Your task to perform on an android device: Go to privacy settings Image 0: 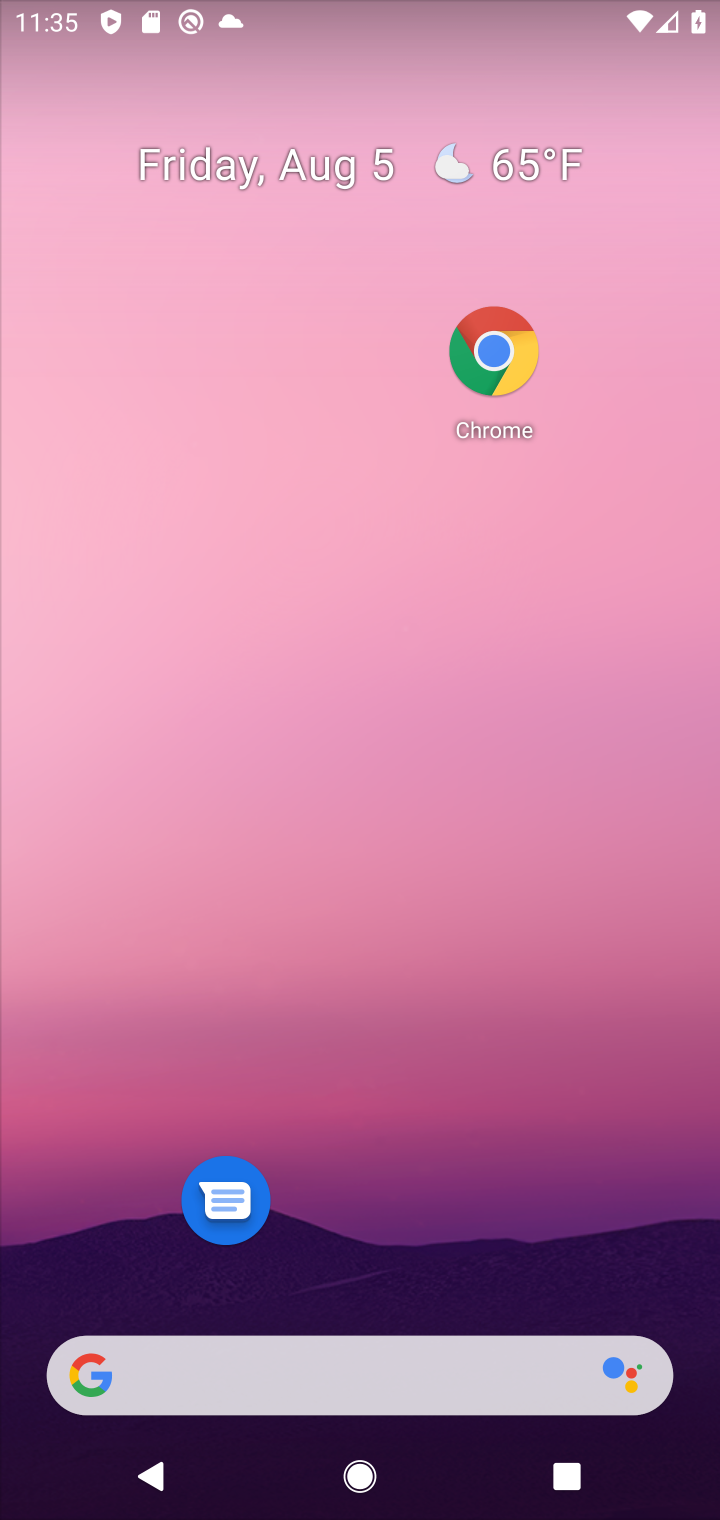
Step 0: drag from (364, 1325) to (457, 453)
Your task to perform on an android device: Go to privacy settings Image 1: 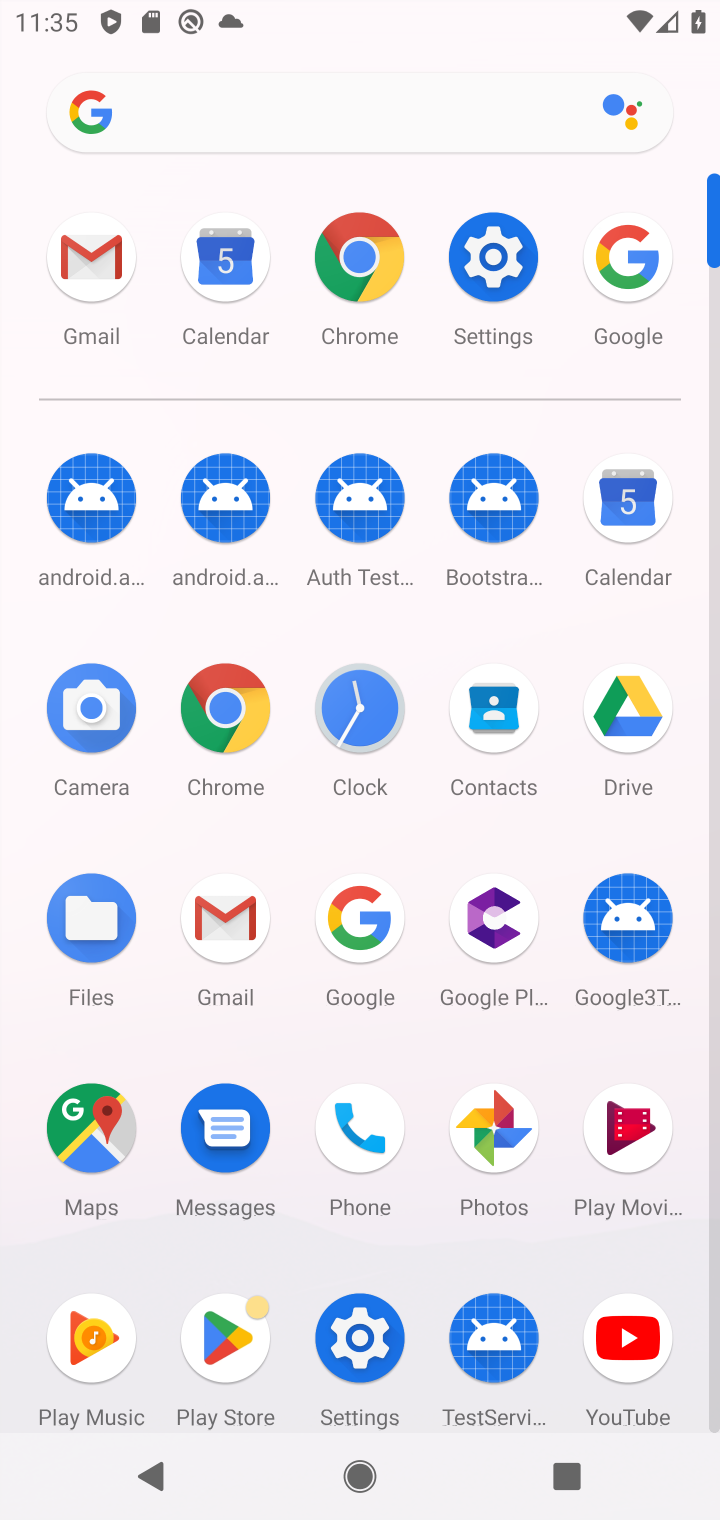
Step 1: click (511, 304)
Your task to perform on an android device: Go to privacy settings Image 2: 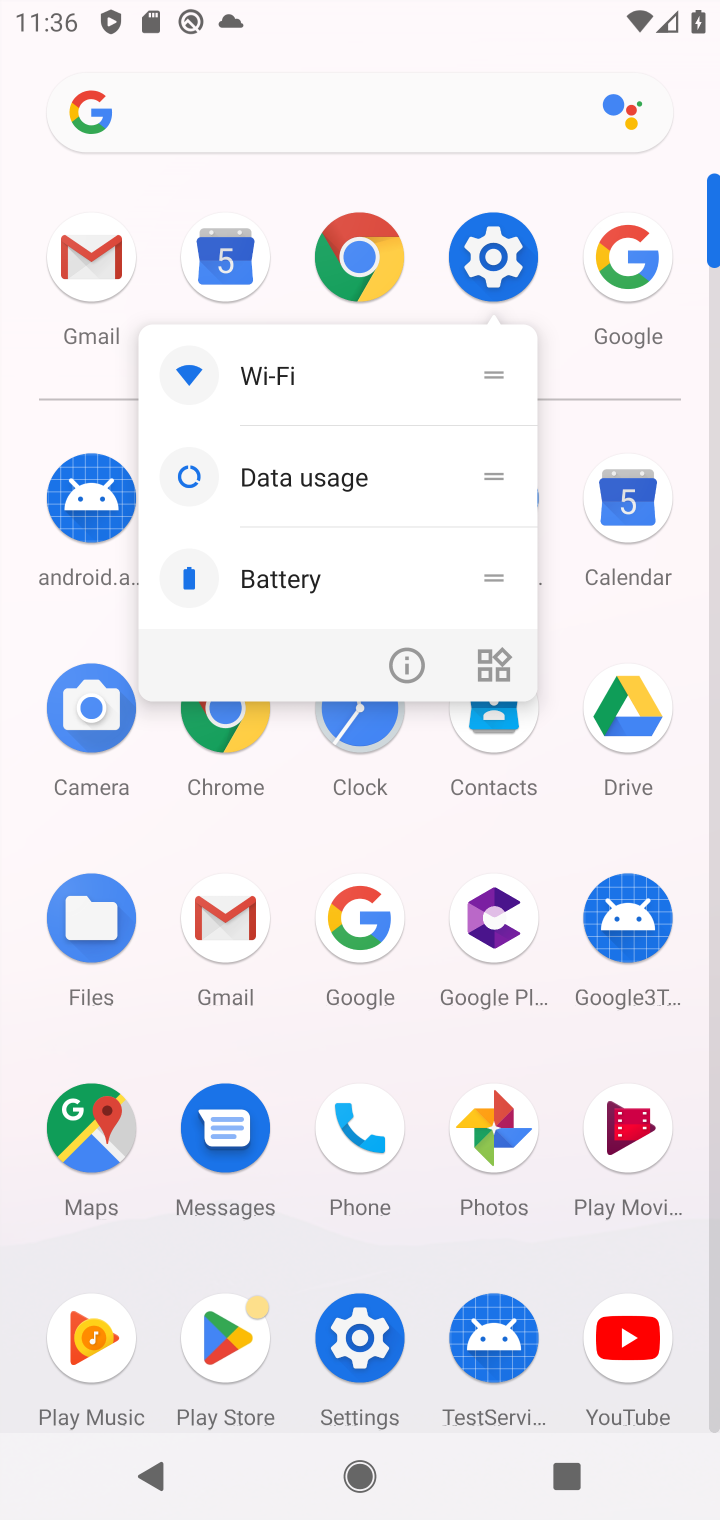
Step 2: click (526, 286)
Your task to perform on an android device: Go to privacy settings Image 3: 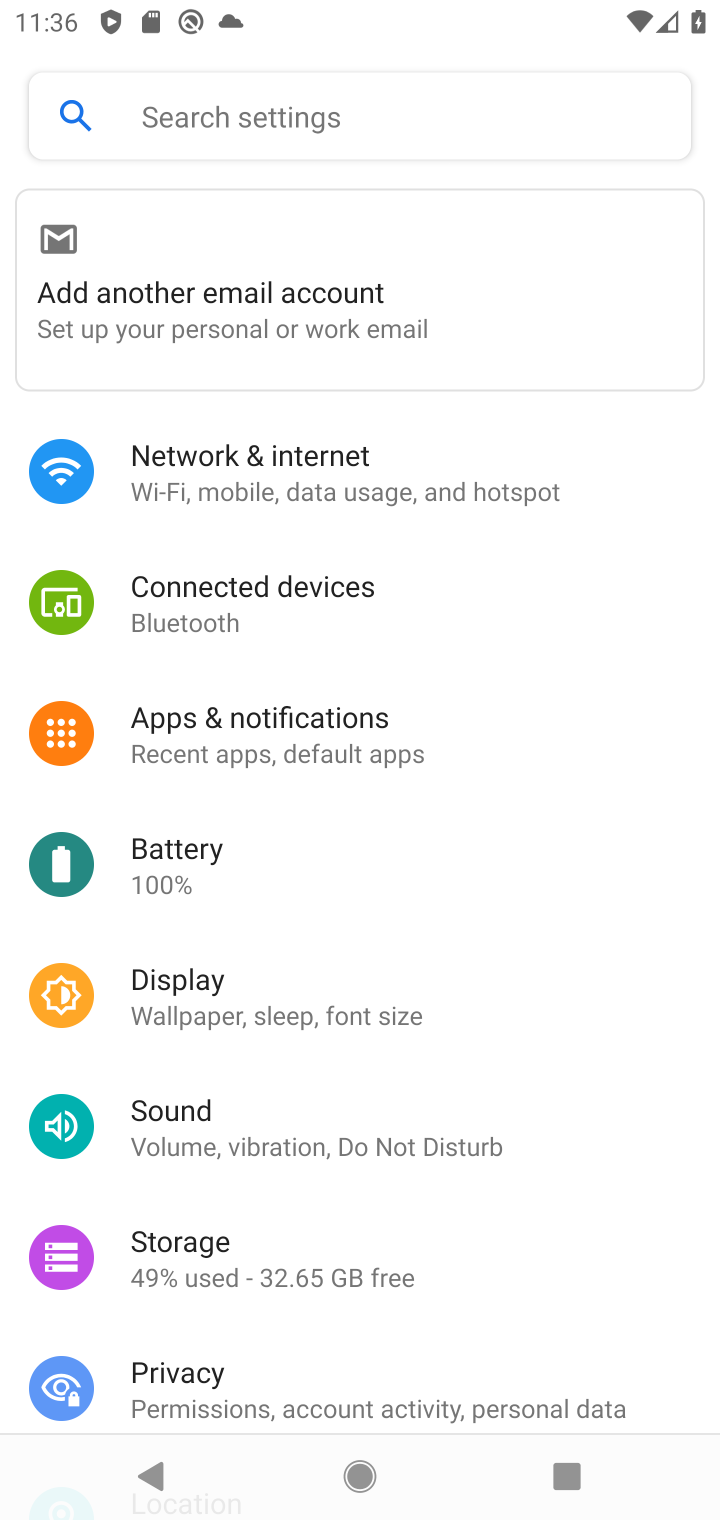
Step 3: drag from (351, 1230) to (421, 855)
Your task to perform on an android device: Go to privacy settings Image 4: 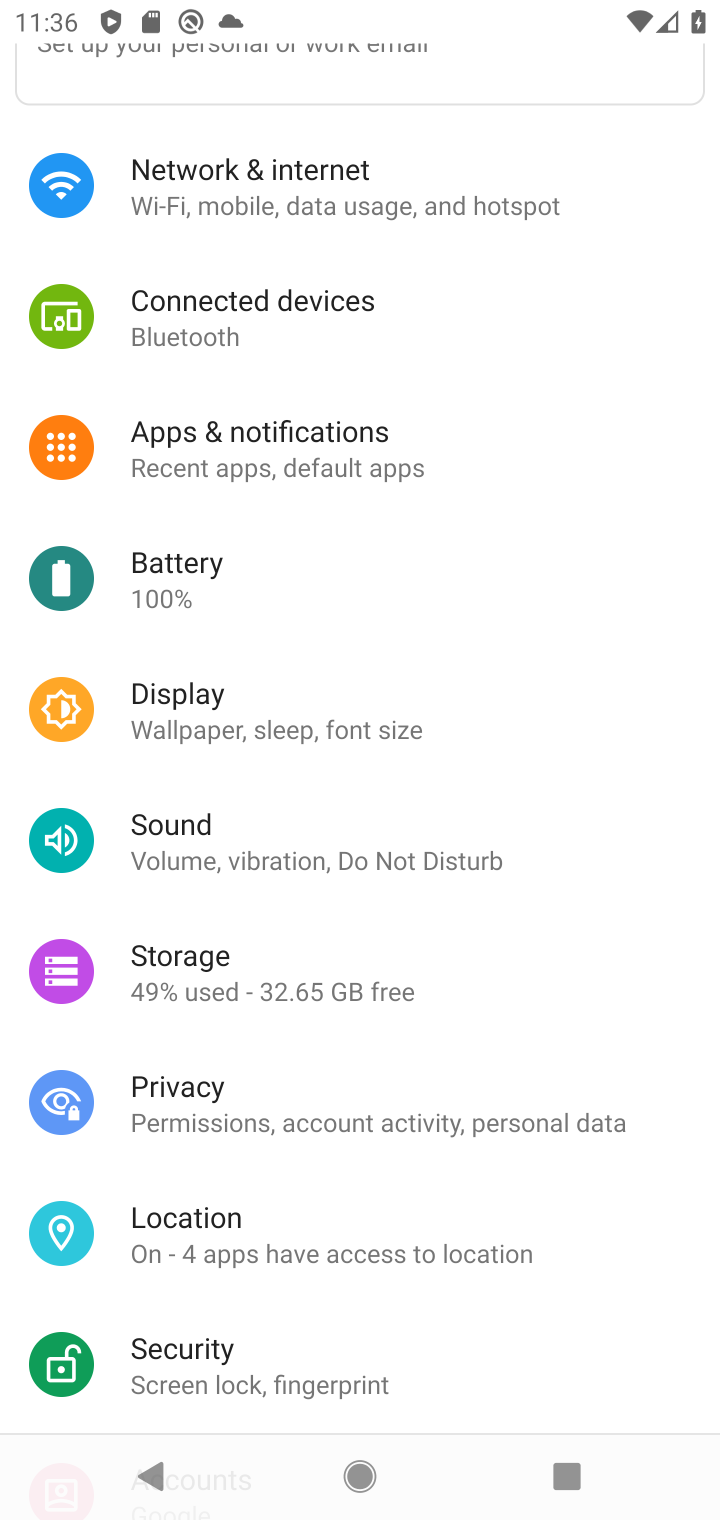
Step 4: click (326, 1103)
Your task to perform on an android device: Go to privacy settings Image 5: 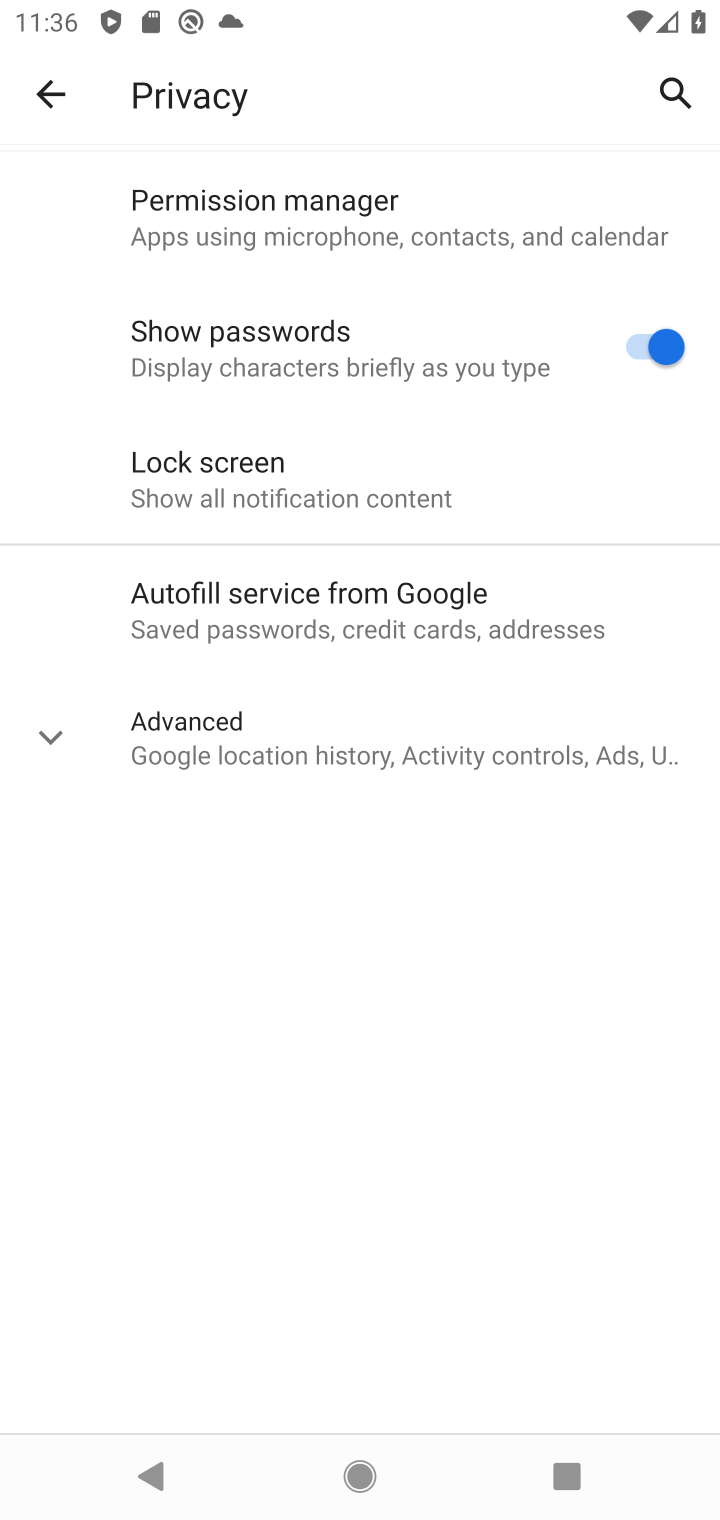
Step 5: task complete